Your task to perform on an android device: Go to location settings Image 0: 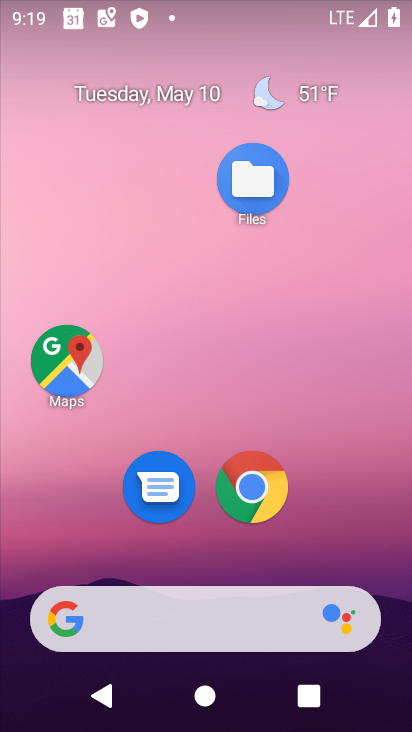
Step 0: drag from (231, 548) to (205, 57)
Your task to perform on an android device: Go to location settings Image 1: 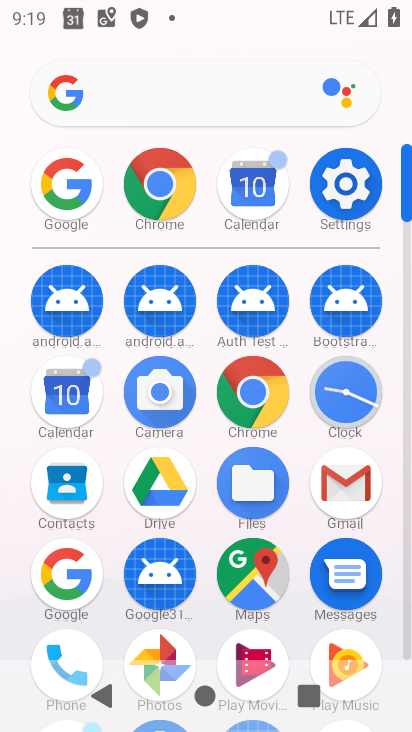
Step 1: click (341, 185)
Your task to perform on an android device: Go to location settings Image 2: 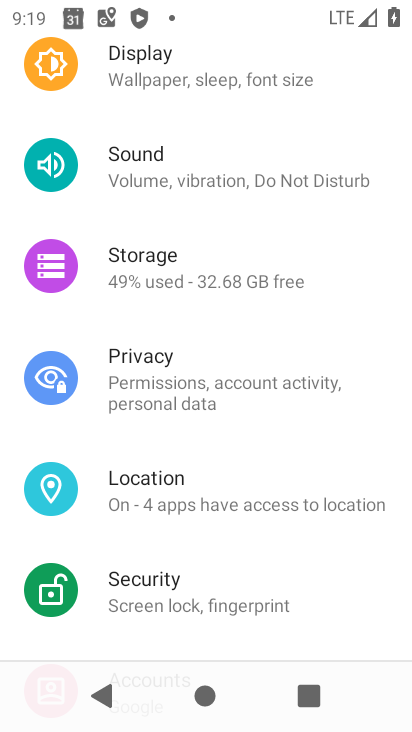
Step 2: click (173, 470)
Your task to perform on an android device: Go to location settings Image 3: 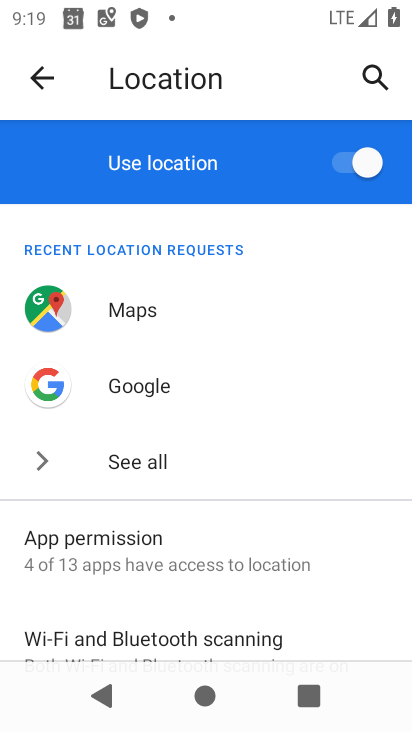
Step 3: task complete